Your task to perform on an android device: Go to calendar. Show me events next week Image 0: 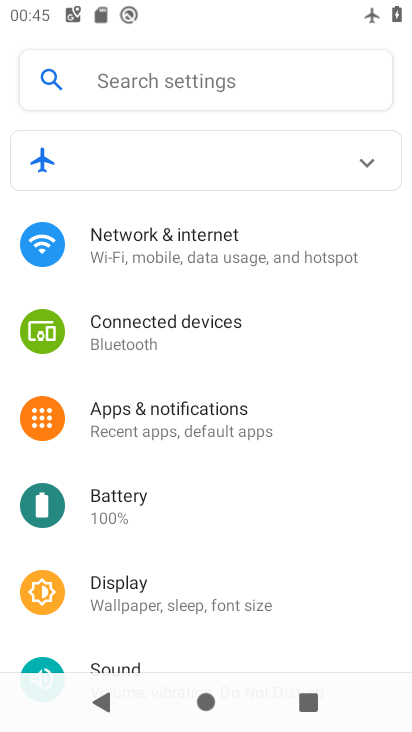
Step 0: press home button
Your task to perform on an android device: Go to calendar. Show me events next week Image 1: 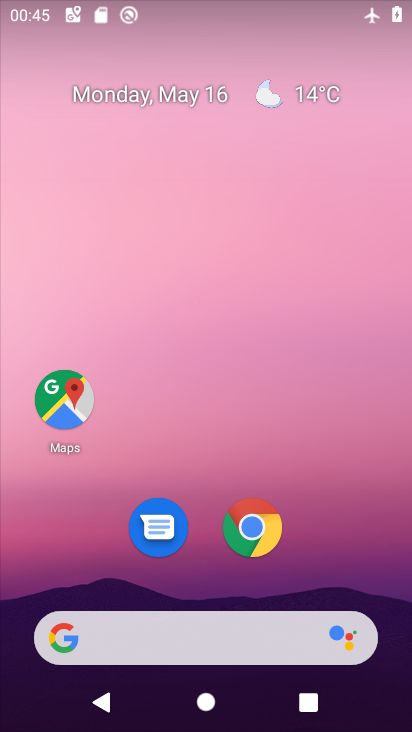
Step 1: drag from (202, 551) to (240, 52)
Your task to perform on an android device: Go to calendar. Show me events next week Image 2: 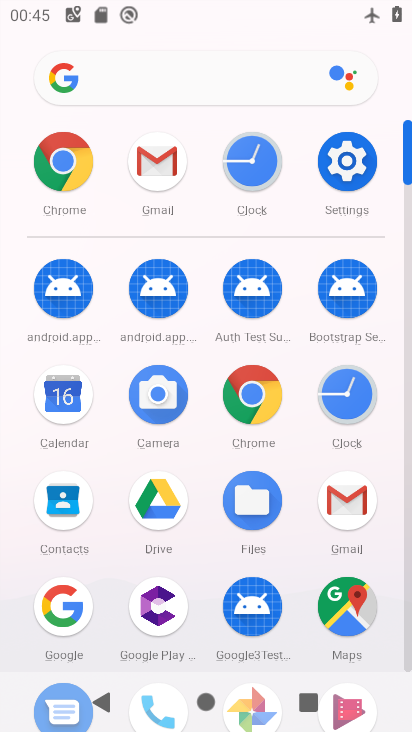
Step 2: click (52, 414)
Your task to perform on an android device: Go to calendar. Show me events next week Image 3: 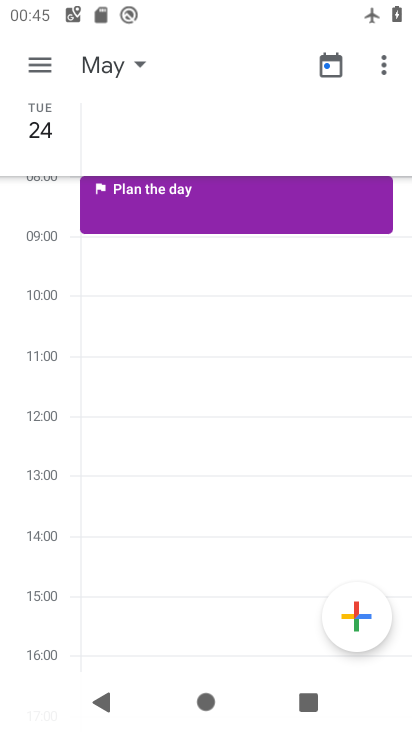
Step 3: drag from (224, 324) to (235, 634)
Your task to perform on an android device: Go to calendar. Show me events next week Image 4: 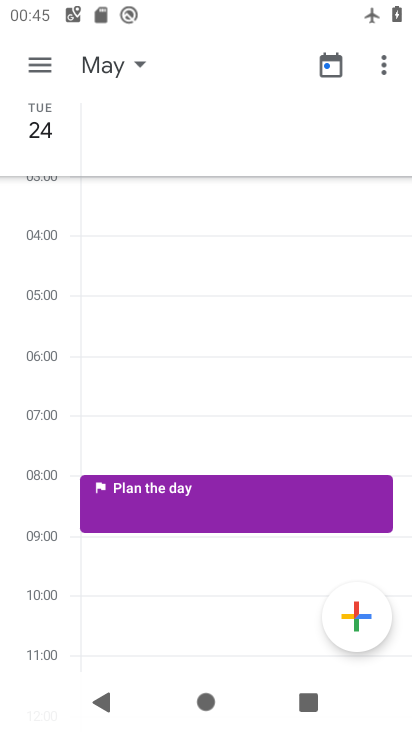
Step 4: click (33, 52)
Your task to perform on an android device: Go to calendar. Show me events next week Image 5: 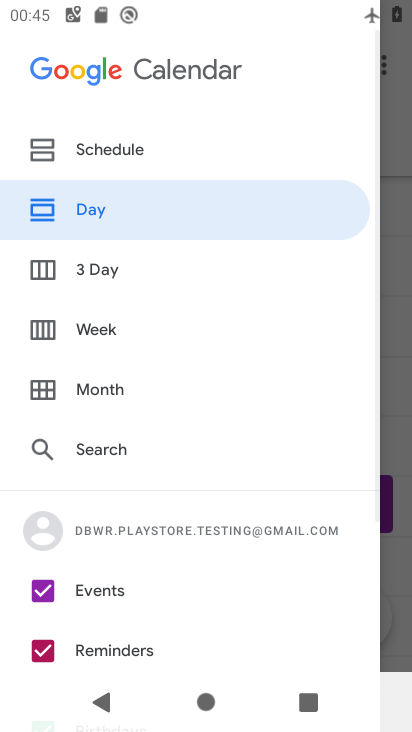
Step 5: drag from (110, 623) to (135, 337)
Your task to perform on an android device: Go to calendar. Show me events next week Image 6: 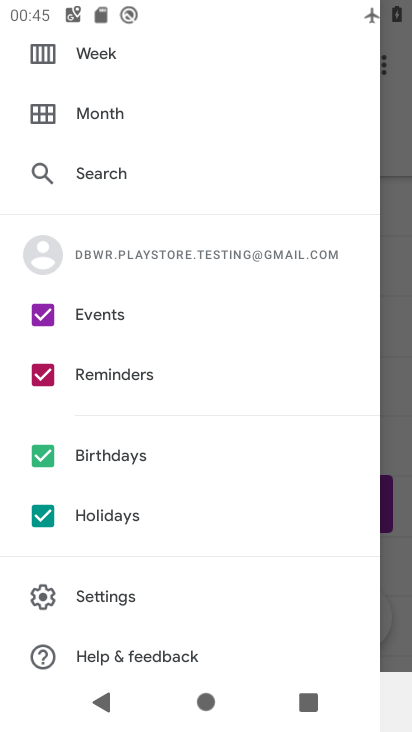
Step 6: click (63, 370)
Your task to perform on an android device: Go to calendar. Show me events next week Image 7: 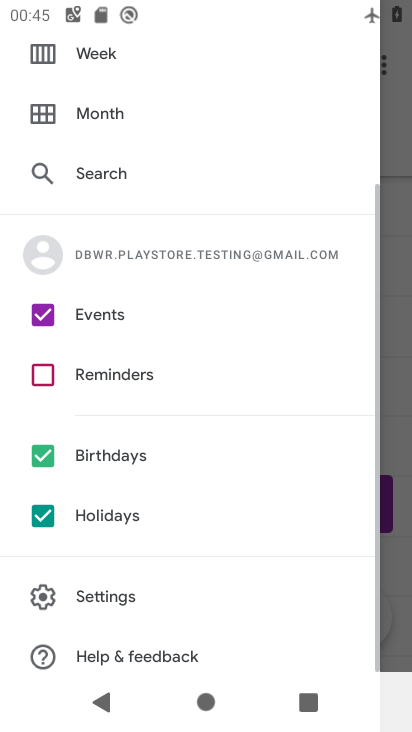
Step 7: click (78, 465)
Your task to perform on an android device: Go to calendar. Show me events next week Image 8: 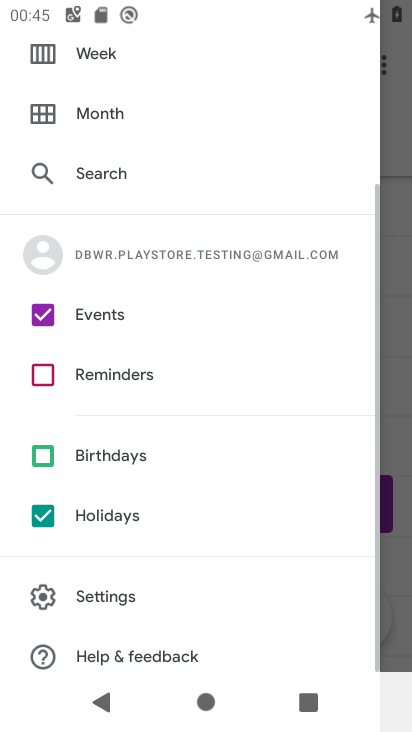
Step 8: click (103, 523)
Your task to perform on an android device: Go to calendar. Show me events next week Image 9: 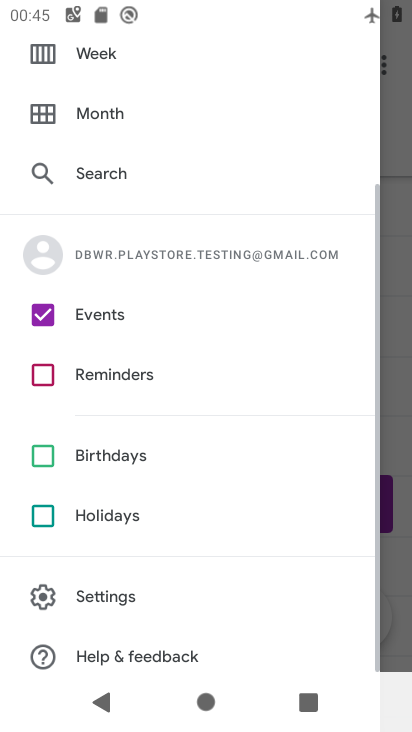
Step 9: drag from (228, 212) to (229, 365)
Your task to perform on an android device: Go to calendar. Show me events next week Image 10: 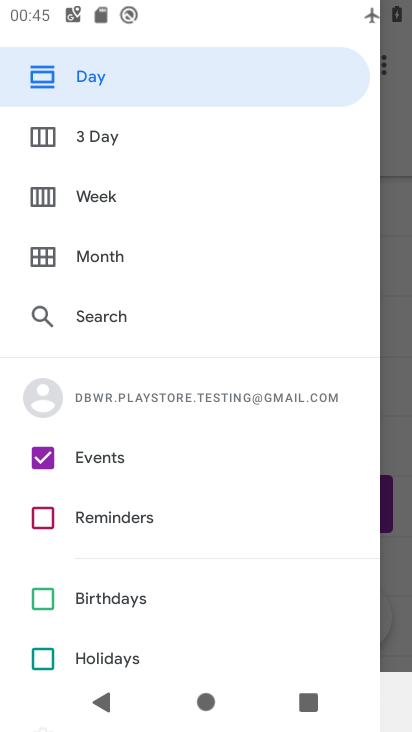
Step 10: click (102, 197)
Your task to perform on an android device: Go to calendar. Show me events next week Image 11: 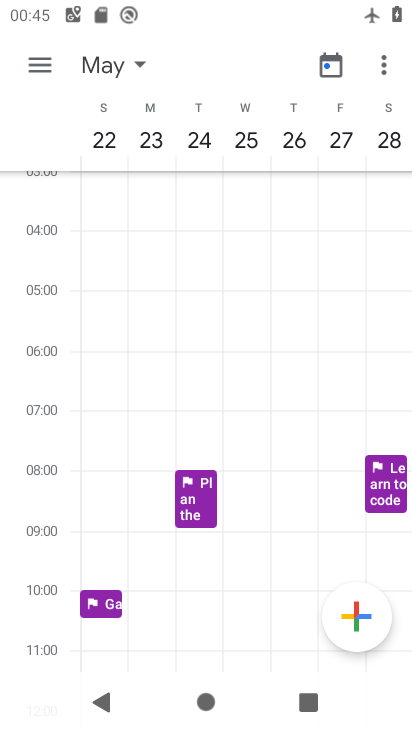
Step 11: task complete